Your task to perform on an android device: What's the weather going to be tomorrow? Image 0: 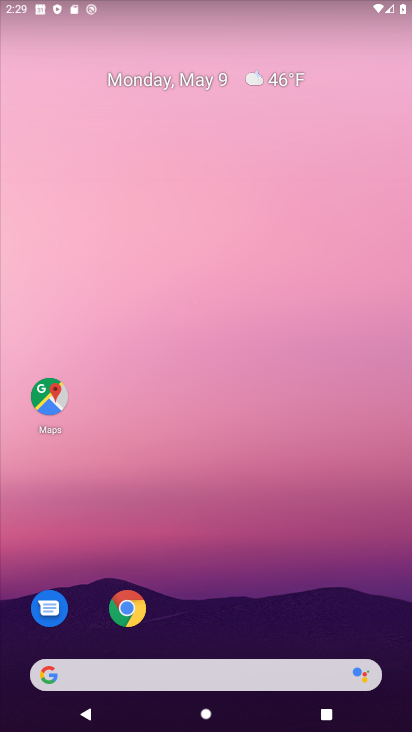
Step 0: click (126, 605)
Your task to perform on an android device: What's the weather going to be tomorrow? Image 1: 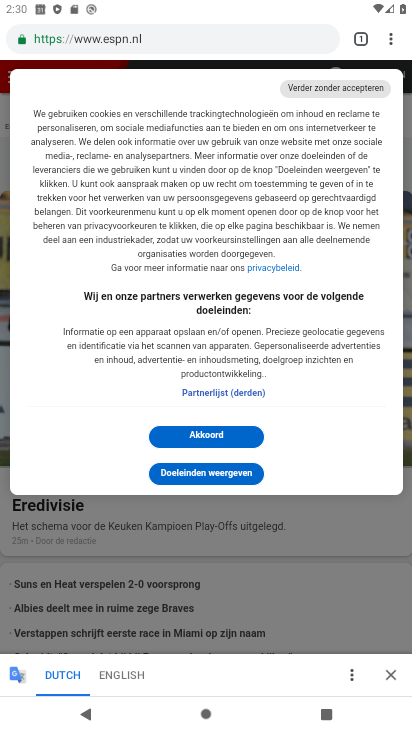
Step 1: click (130, 32)
Your task to perform on an android device: What's the weather going to be tomorrow? Image 2: 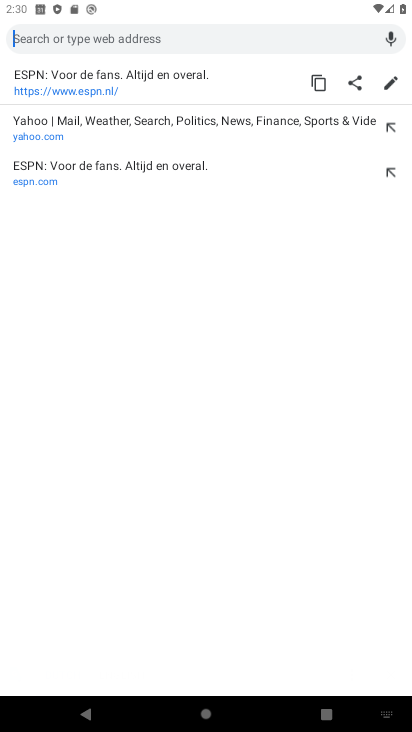
Step 2: type "What's the weather going to be tomorrow?"
Your task to perform on an android device: What's the weather going to be tomorrow? Image 3: 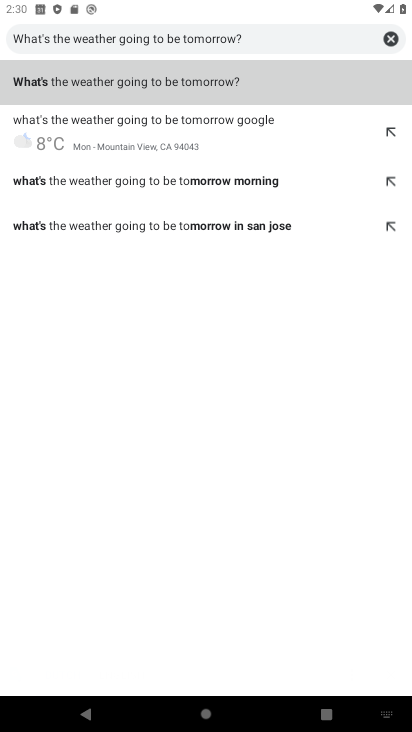
Step 3: click (230, 72)
Your task to perform on an android device: What's the weather going to be tomorrow? Image 4: 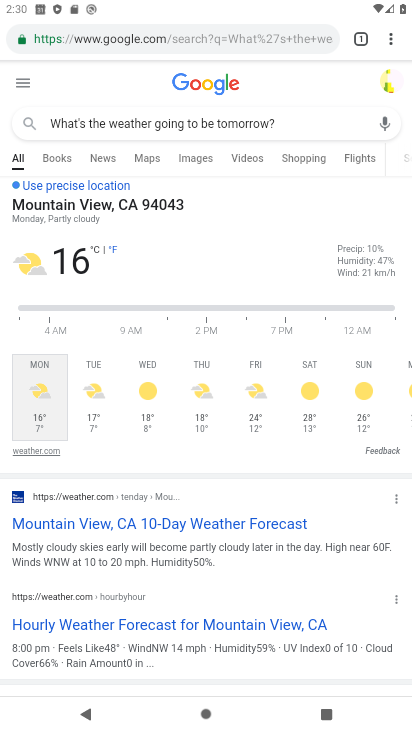
Step 4: task complete